Your task to perform on an android device: Search for the best running shoes on Nike. Image 0: 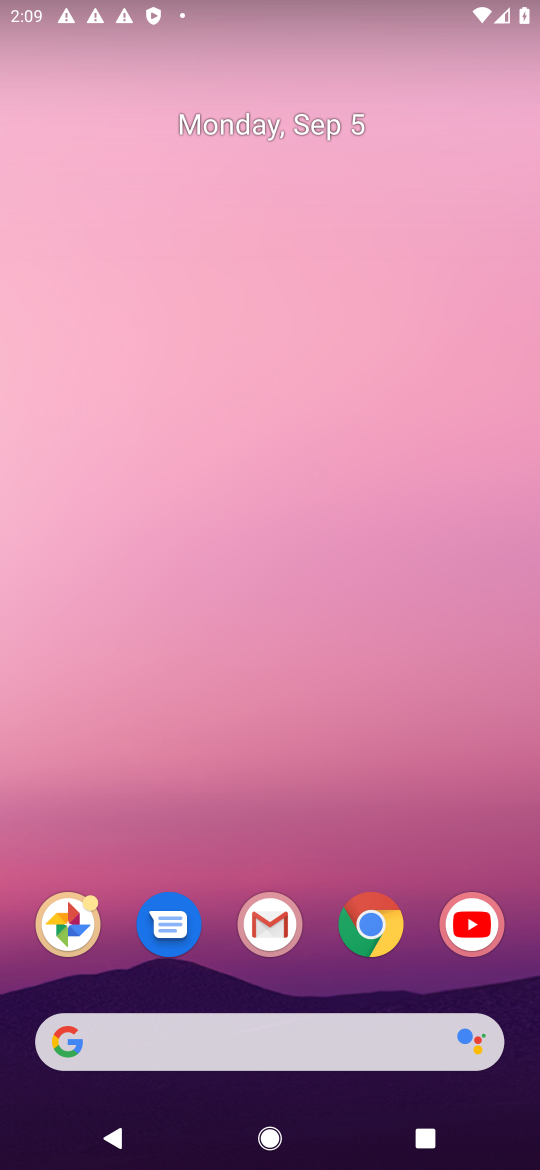
Step 0: drag from (337, 703) to (321, 269)
Your task to perform on an android device: Search for the best running shoes on Nike. Image 1: 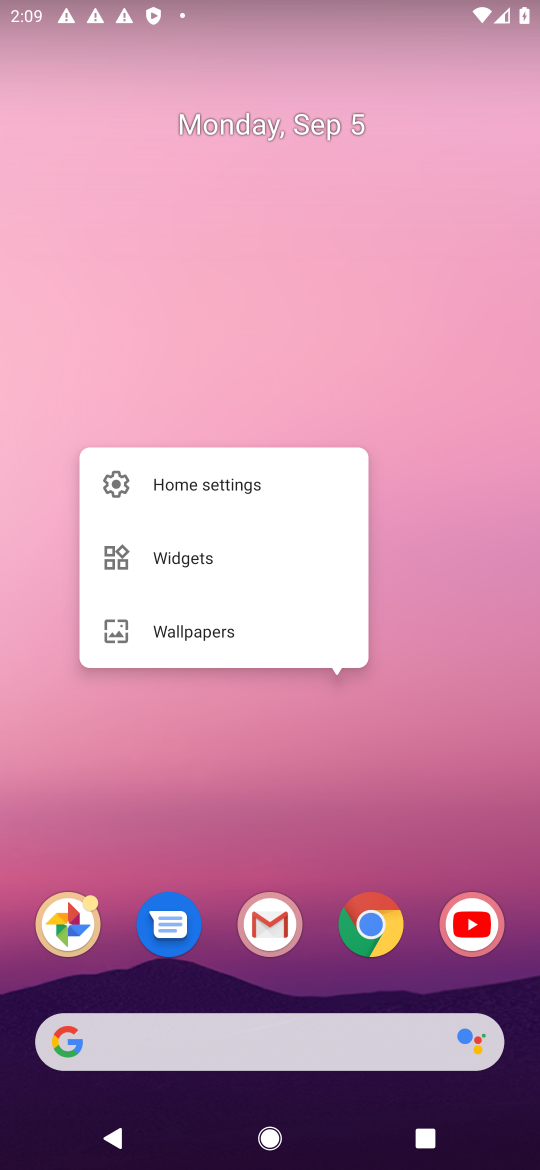
Step 1: click (321, 269)
Your task to perform on an android device: Search for the best running shoes on Nike. Image 2: 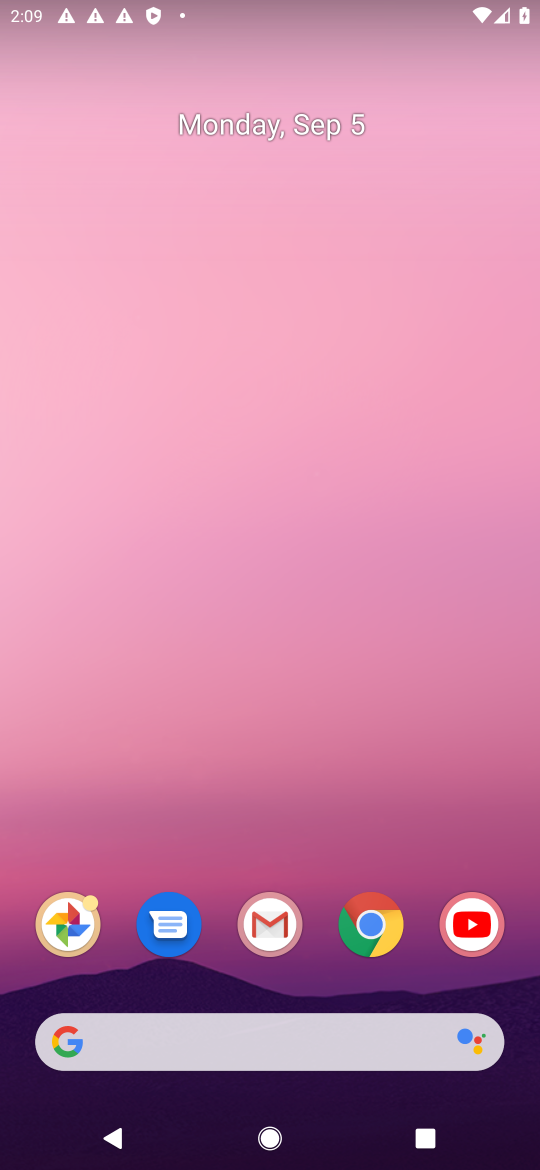
Step 2: click (375, 947)
Your task to perform on an android device: Search for the best running shoes on Nike. Image 3: 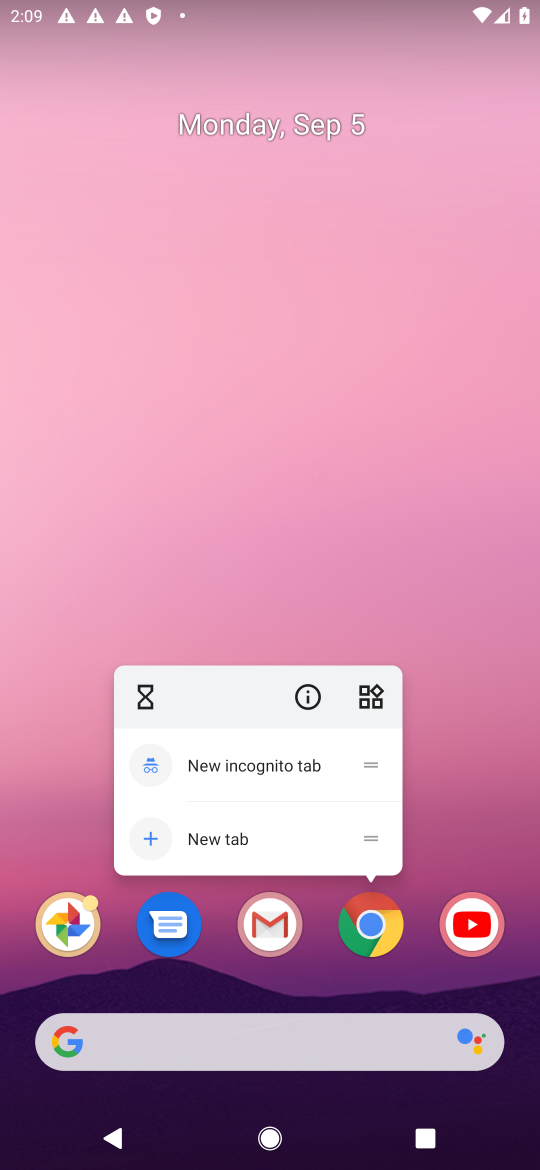
Step 3: click (385, 918)
Your task to perform on an android device: Search for the best running shoes on Nike. Image 4: 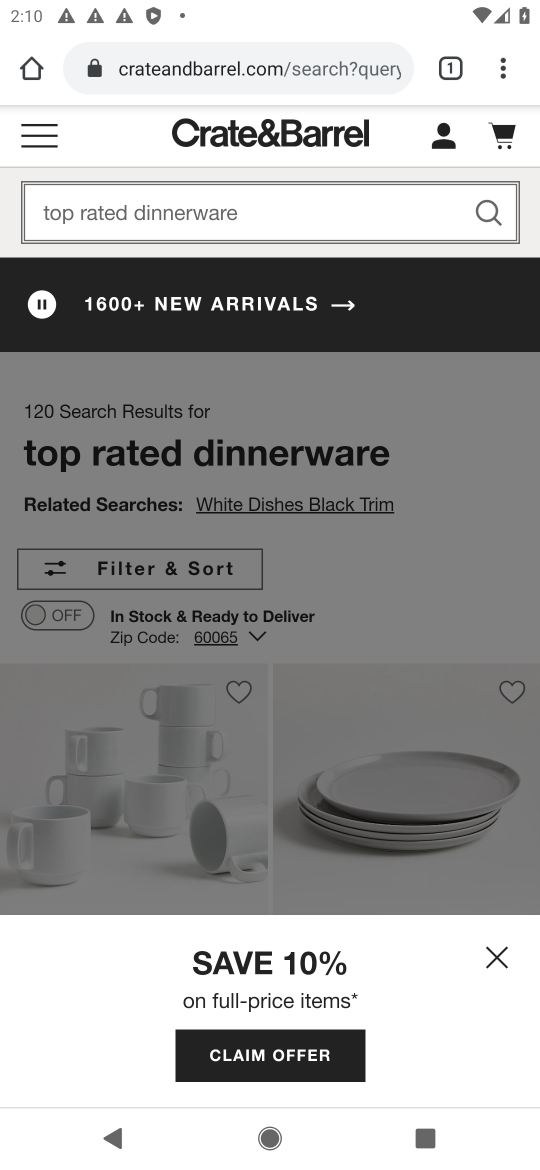
Step 4: click (288, 68)
Your task to perform on an android device: Search for the best running shoes on Nike. Image 5: 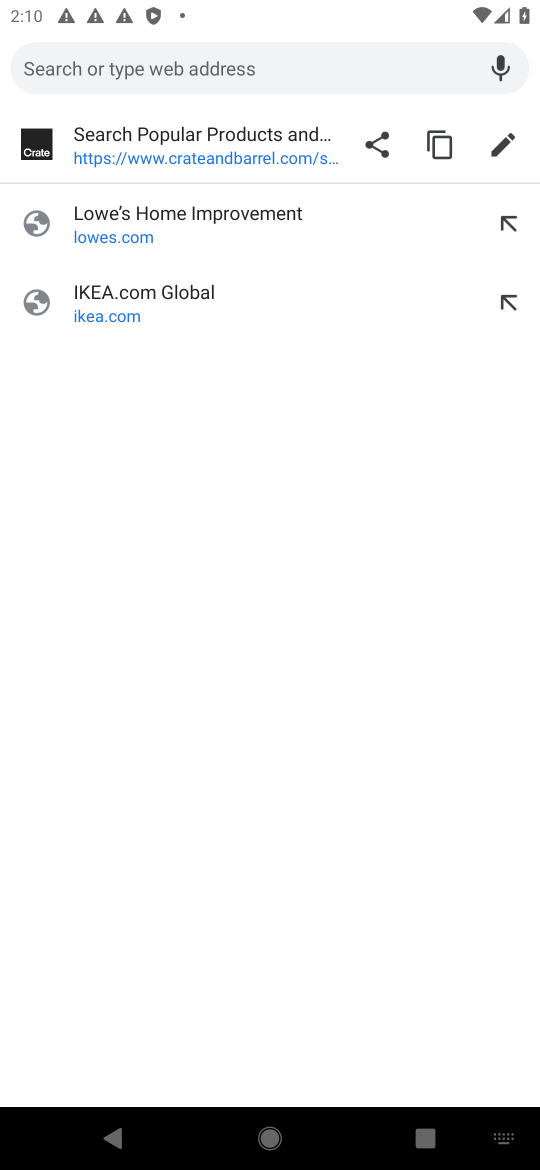
Step 5: type "Nike"
Your task to perform on an android device: Search for the best running shoes on Nike. Image 6: 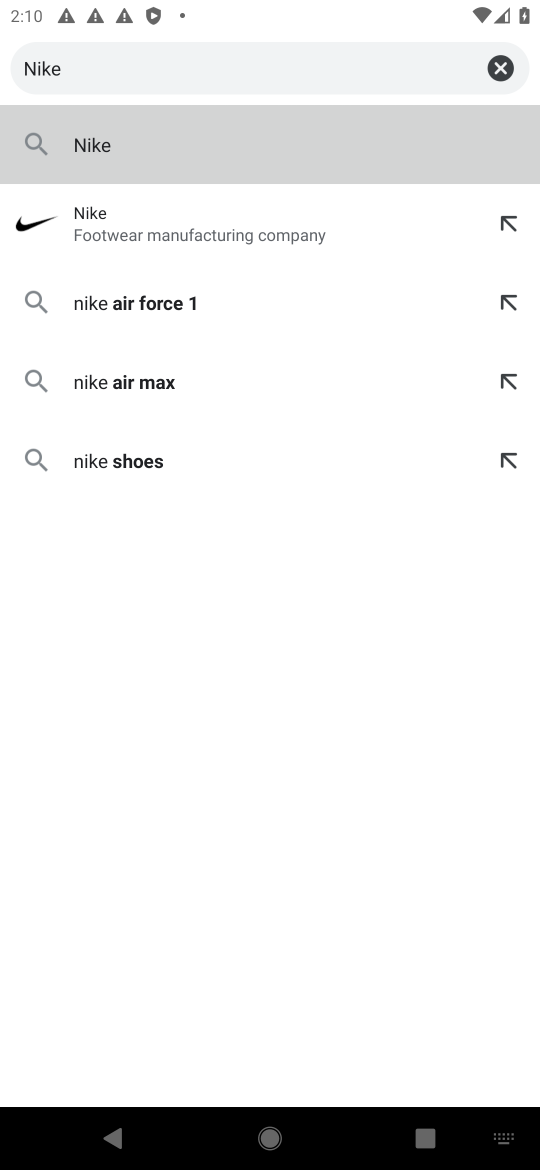
Step 6: click (96, 211)
Your task to perform on an android device: Search for the best running shoes on Nike. Image 7: 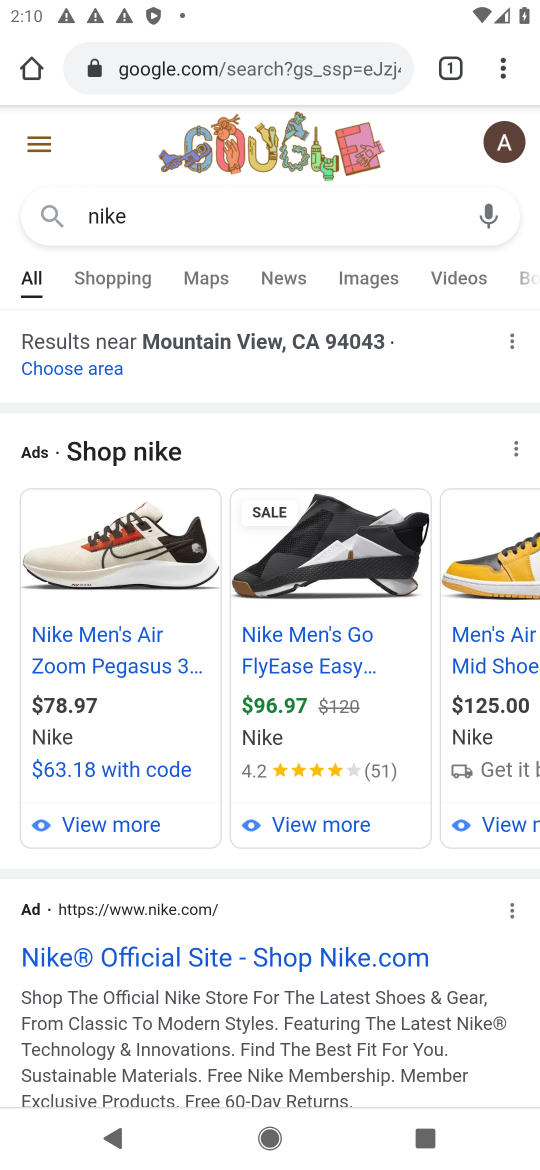
Step 7: drag from (313, 638) to (322, 509)
Your task to perform on an android device: Search for the best running shoes on Nike. Image 8: 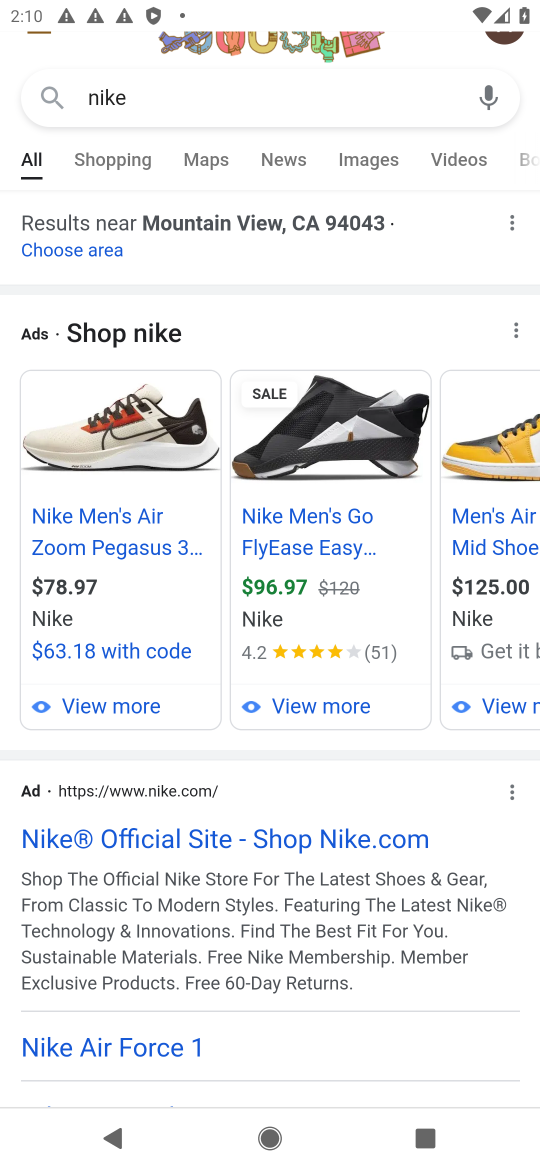
Step 8: drag from (371, 895) to (360, 329)
Your task to perform on an android device: Search for the best running shoes on Nike. Image 9: 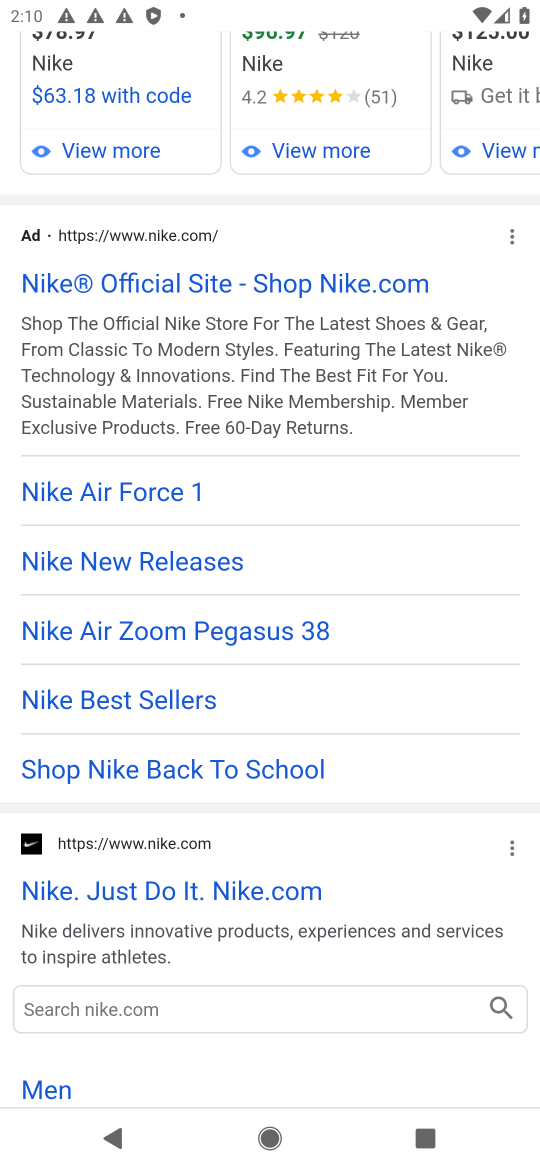
Step 9: click (373, 305)
Your task to perform on an android device: Search for the best running shoes on Nike. Image 10: 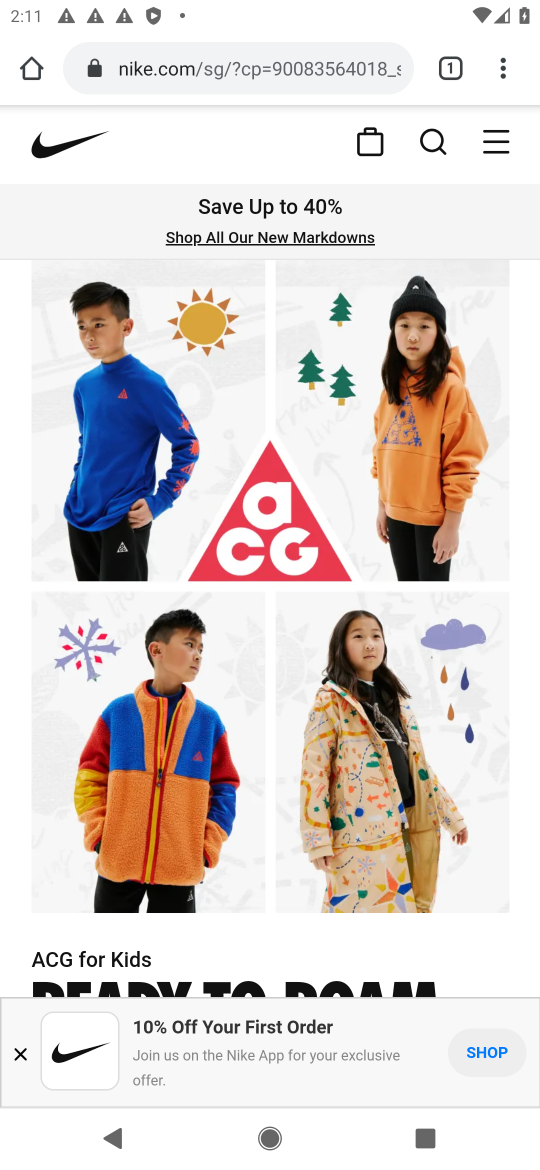
Step 10: click (439, 147)
Your task to perform on an android device: Search for the best running shoes on Nike. Image 11: 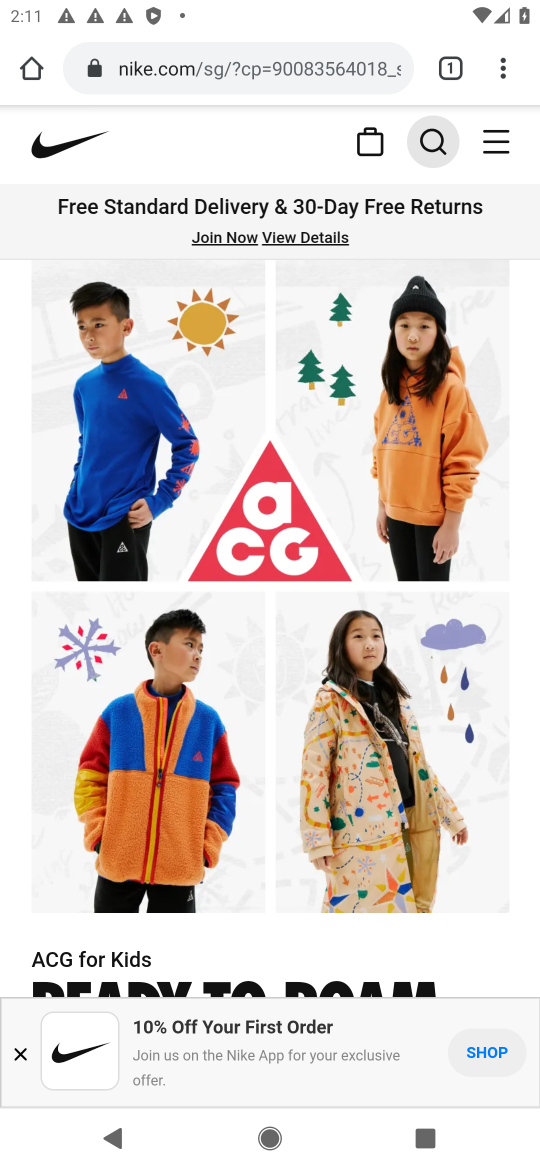
Step 11: click (439, 152)
Your task to perform on an android device: Search for the best running shoes on Nike. Image 12: 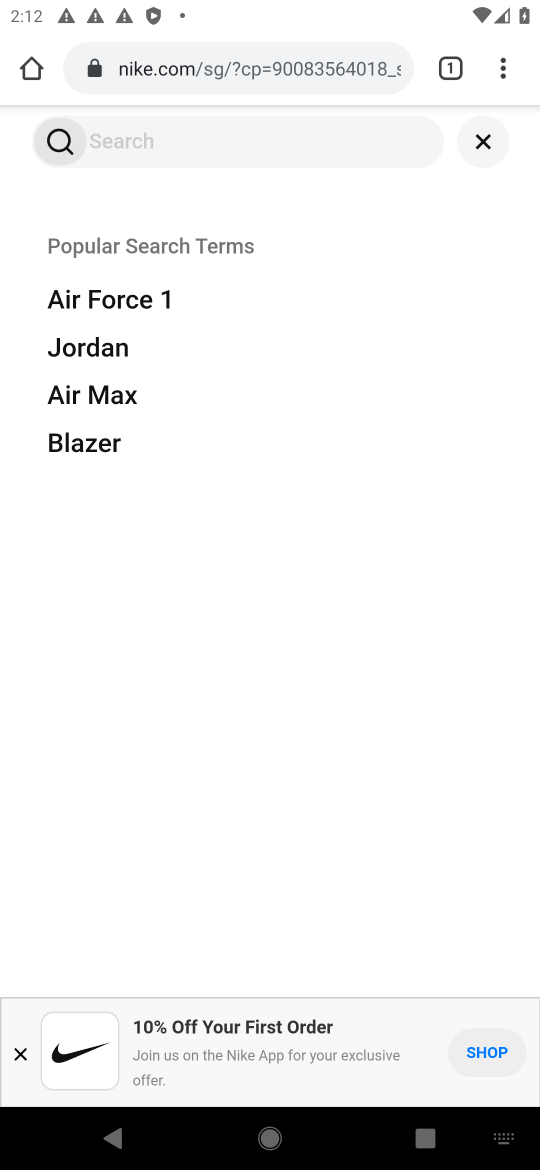
Step 12: type "best running shoes"
Your task to perform on an android device: Search for the best running shoes on Nike. Image 13: 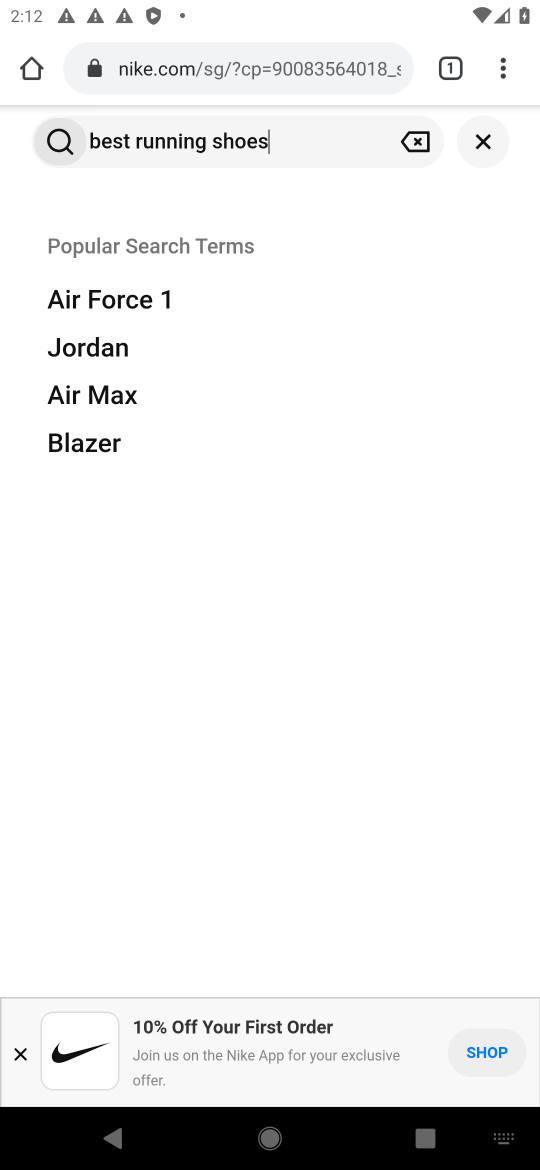
Step 13: click (62, 146)
Your task to perform on an android device: Search for the best running shoes on Nike. Image 14: 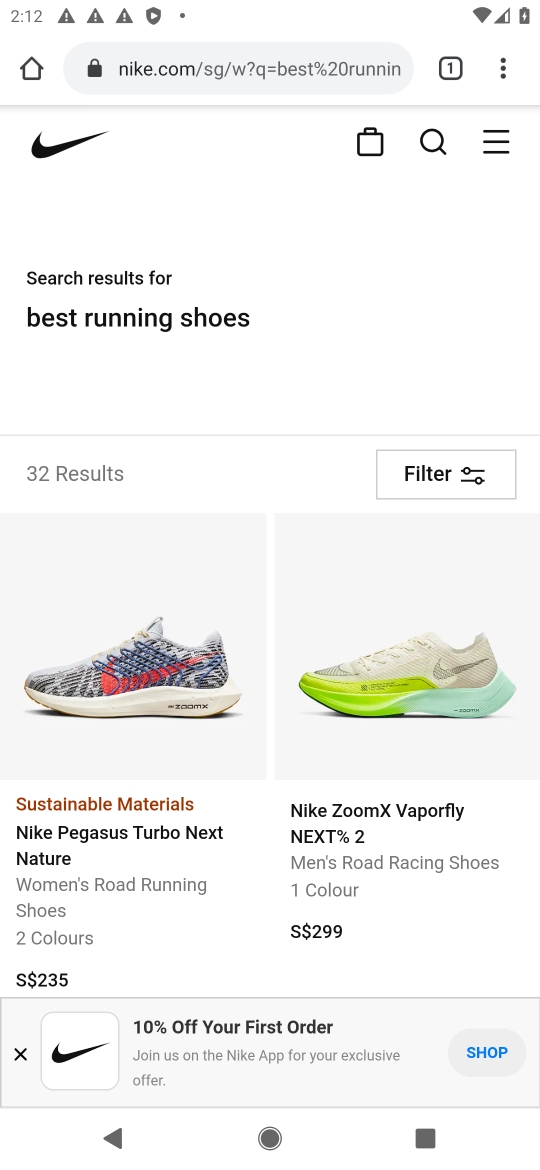
Step 14: task complete